Your task to perform on an android device: toggle location history Image 0: 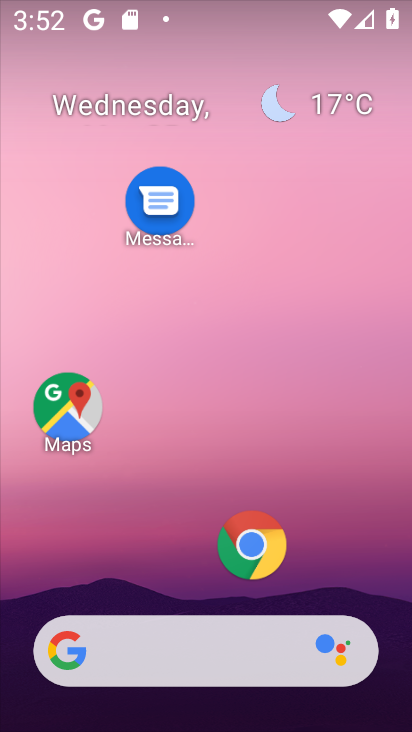
Step 0: drag from (331, 563) to (306, 149)
Your task to perform on an android device: toggle location history Image 1: 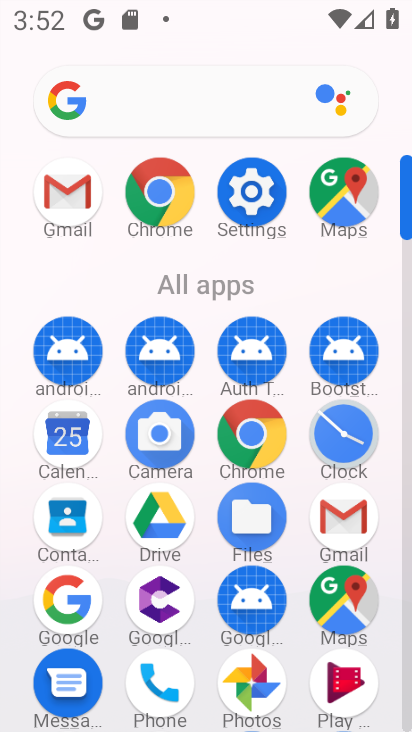
Step 1: click (249, 193)
Your task to perform on an android device: toggle location history Image 2: 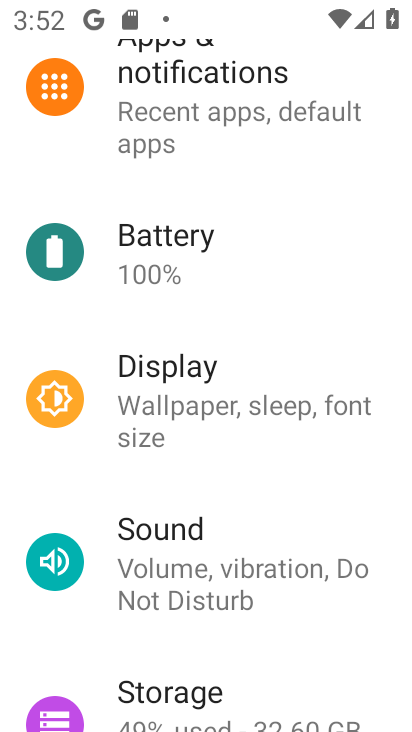
Step 2: drag from (290, 555) to (274, 89)
Your task to perform on an android device: toggle location history Image 3: 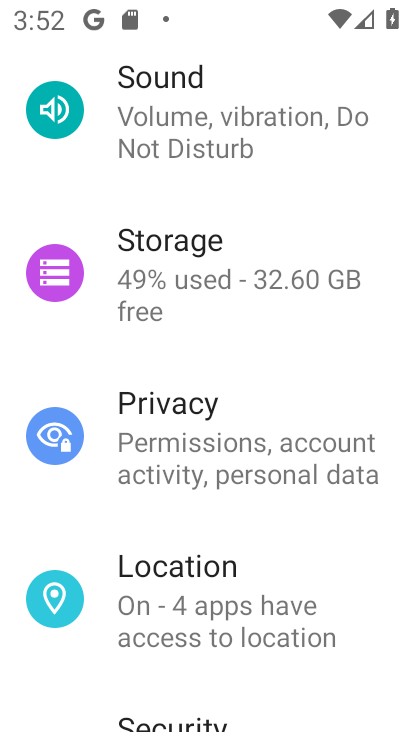
Step 3: click (239, 614)
Your task to perform on an android device: toggle location history Image 4: 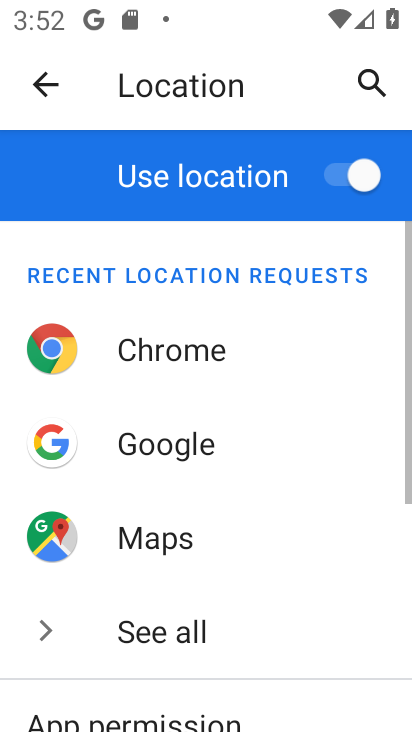
Step 4: drag from (242, 606) to (275, 78)
Your task to perform on an android device: toggle location history Image 5: 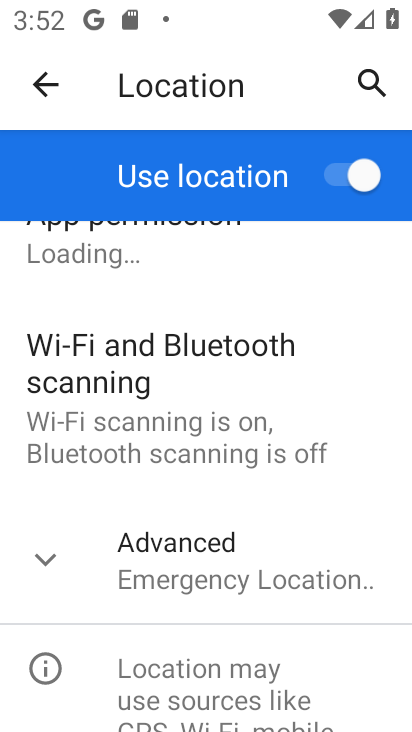
Step 5: click (281, 589)
Your task to perform on an android device: toggle location history Image 6: 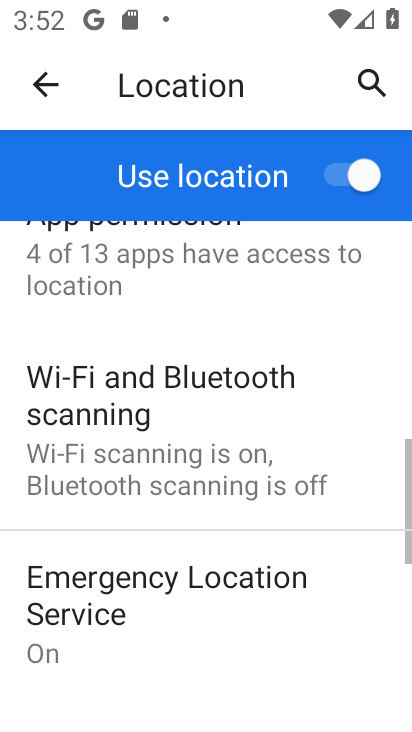
Step 6: drag from (283, 555) to (286, 275)
Your task to perform on an android device: toggle location history Image 7: 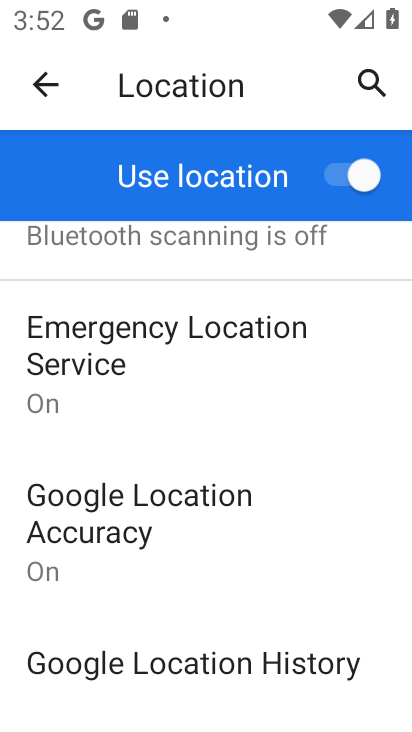
Step 7: click (259, 657)
Your task to perform on an android device: toggle location history Image 8: 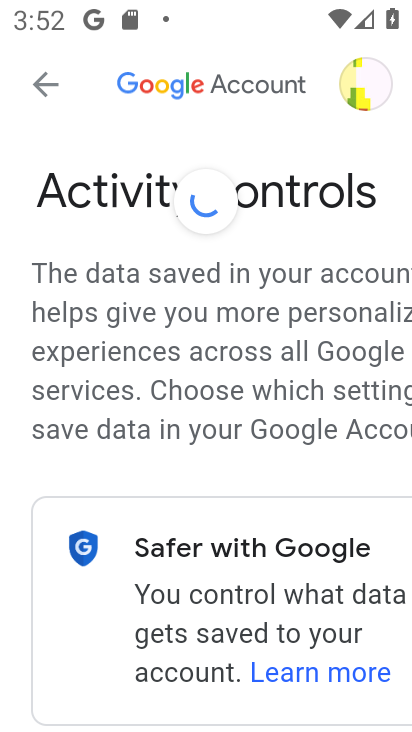
Step 8: drag from (290, 592) to (282, 149)
Your task to perform on an android device: toggle location history Image 9: 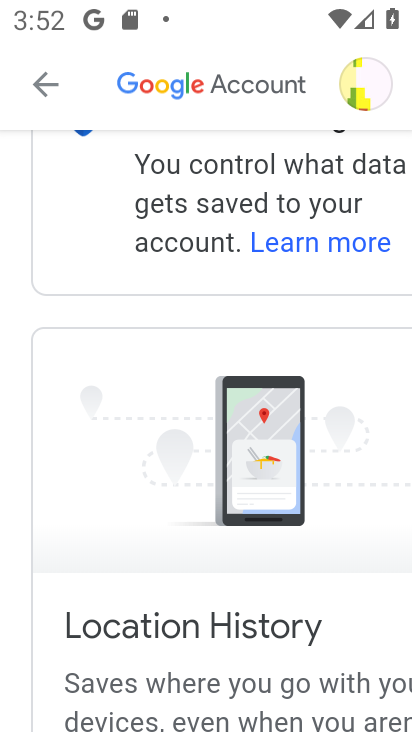
Step 9: drag from (232, 549) to (273, 117)
Your task to perform on an android device: toggle location history Image 10: 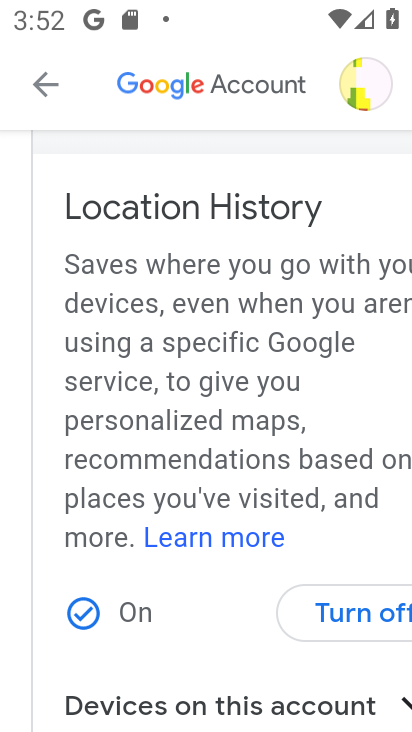
Step 10: drag from (243, 622) to (278, 227)
Your task to perform on an android device: toggle location history Image 11: 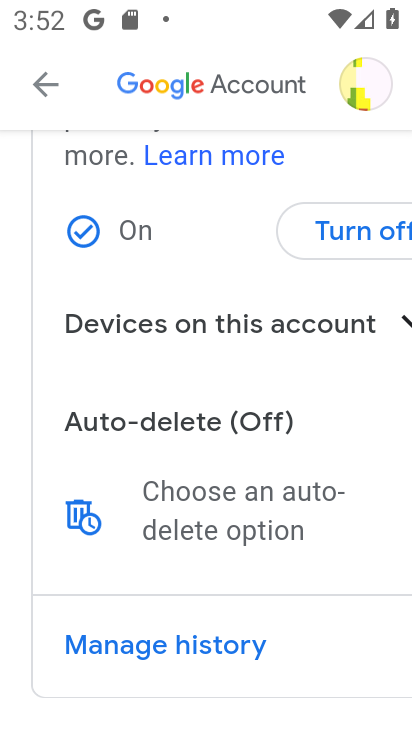
Step 11: click (320, 237)
Your task to perform on an android device: toggle location history Image 12: 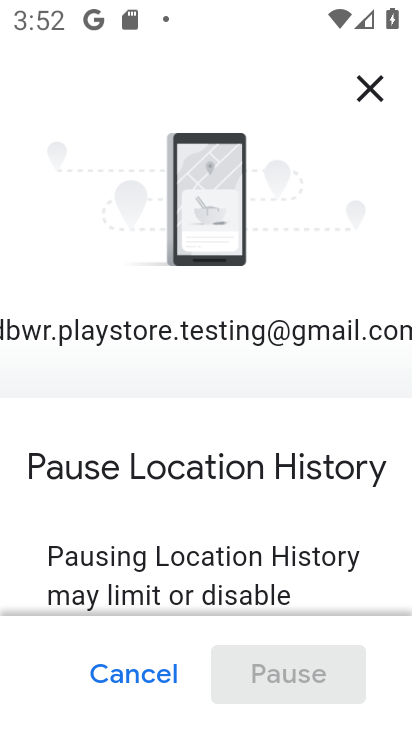
Step 12: task complete